Your task to perform on an android device: Go to privacy settings Image 0: 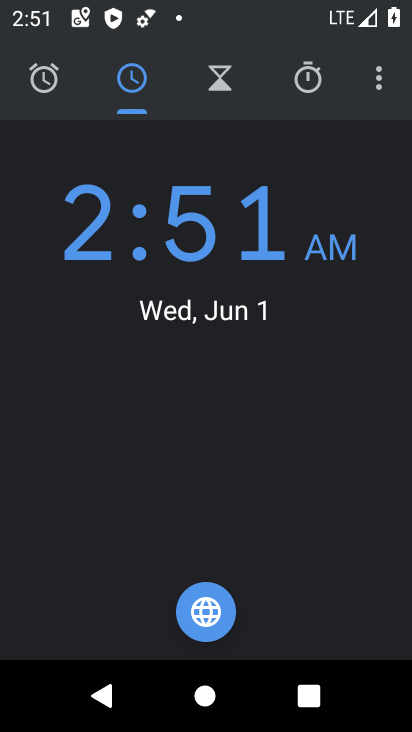
Step 0: press home button
Your task to perform on an android device: Go to privacy settings Image 1: 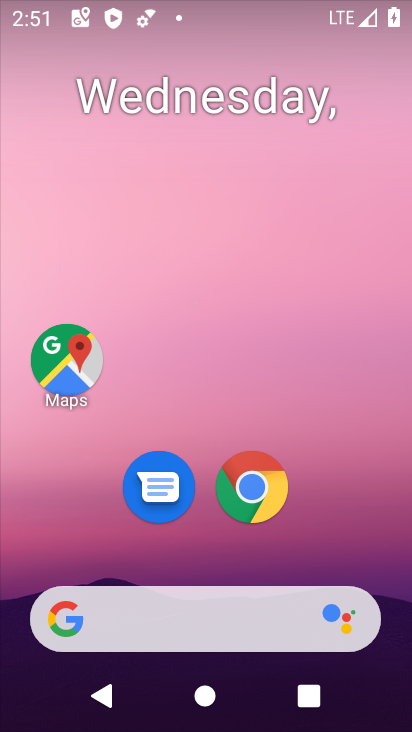
Step 1: drag from (314, 550) to (318, 40)
Your task to perform on an android device: Go to privacy settings Image 2: 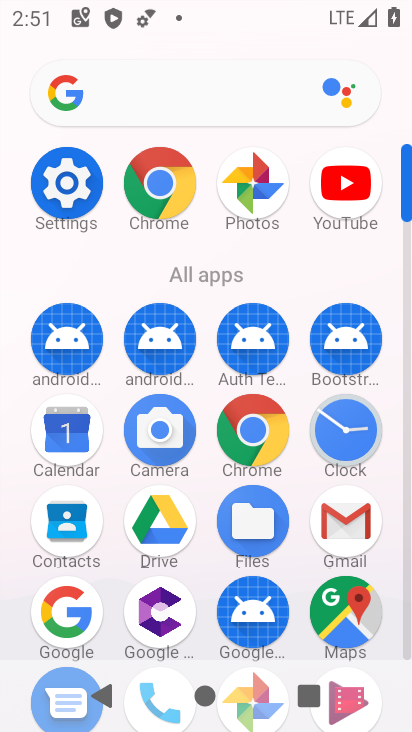
Step 2: click (56, 199)
Your task to perform on an android device: Go to privacy settings Image 3: 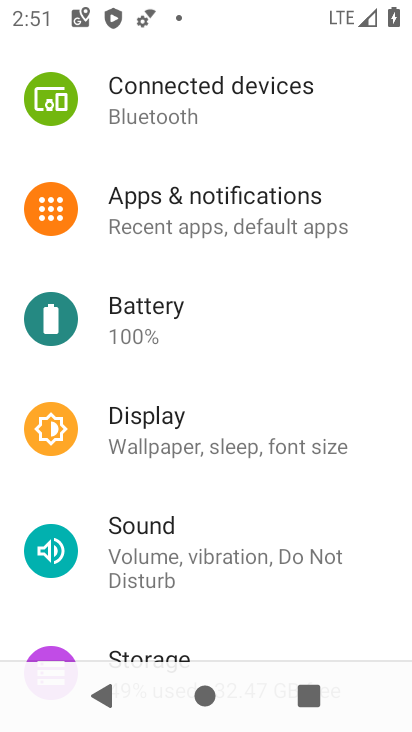
Step 3: drag from (257, 545) to (286, 33)
Your task to perform on an android device: Go to privacy settings Image 4: 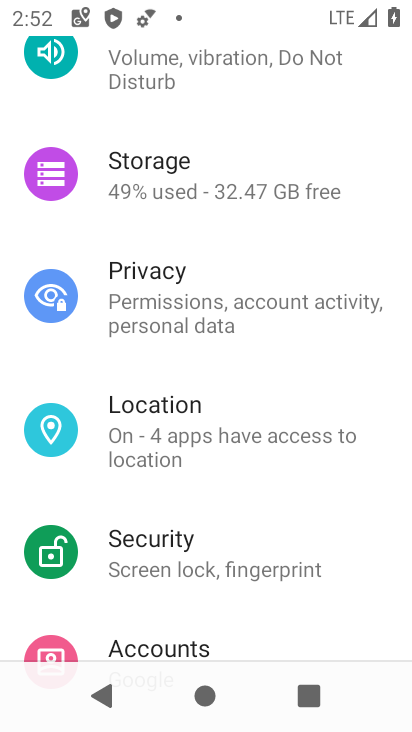
Step 4: click (246, 287)
Your task to perform on an android device: Go to privacy settings Image 5: 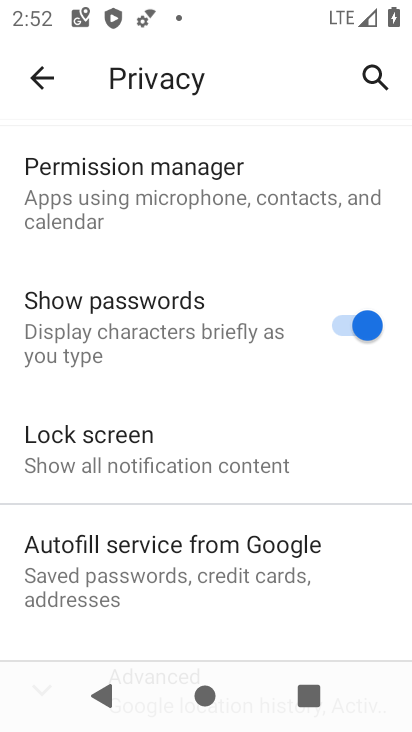
Step 5: task complete